Your task to perform on an android device: Go to location settings Image 0: 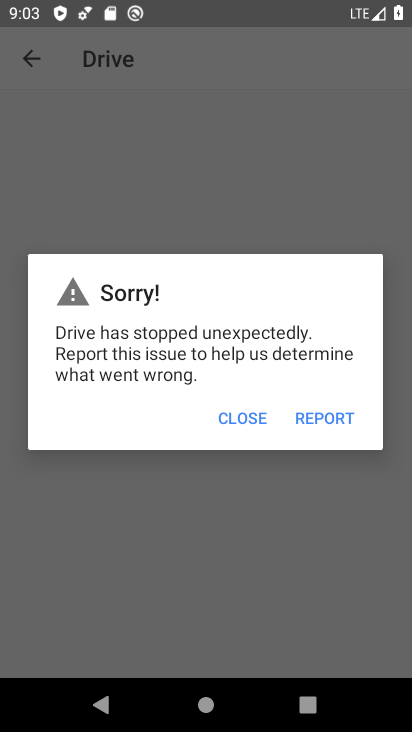
Step 0: press home button
Your task to perform on an android device: Go to location settings Image 1: 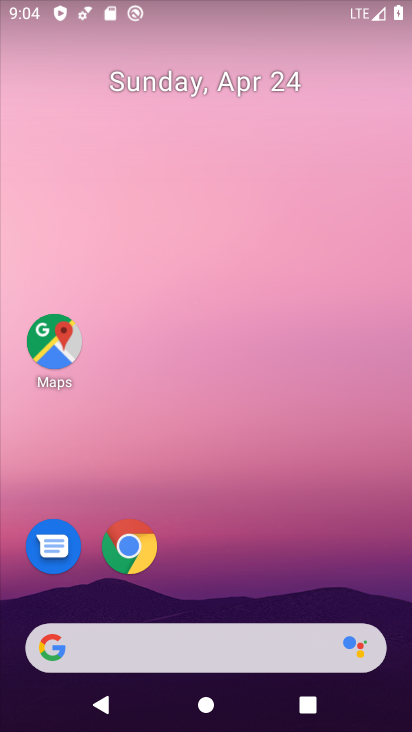
Step 1: drag from (272, 571) to (319, 27)
Your task to perform on an android device: Go to location settings Image 2: 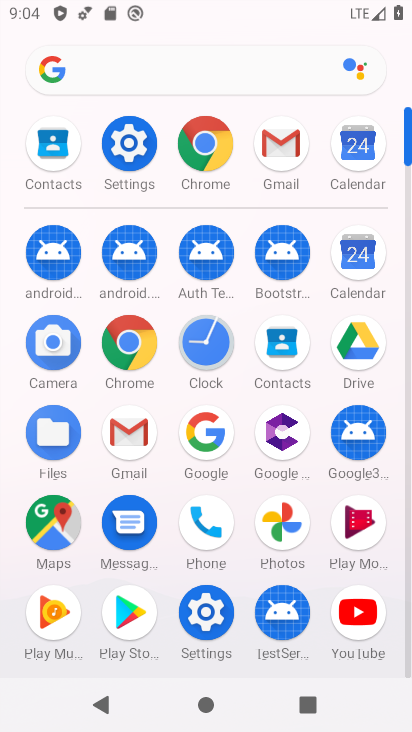
Step 2: click (128, 160)
Your task to perform on an android device: Go to location settings Image 3: 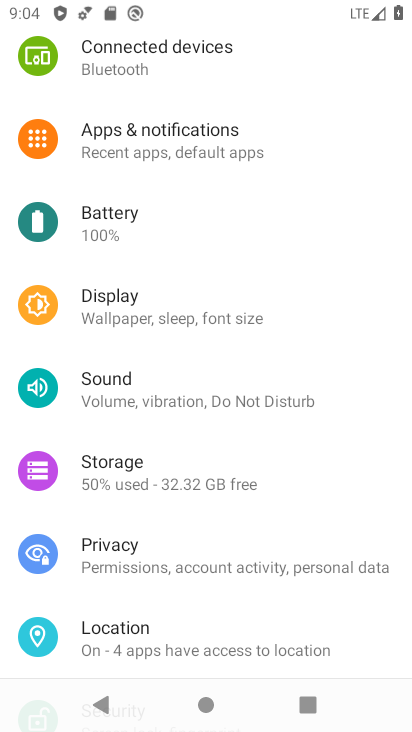
Step 3: click (222, 627)
Your task to perform on an android device: Go to location settings Image 4: 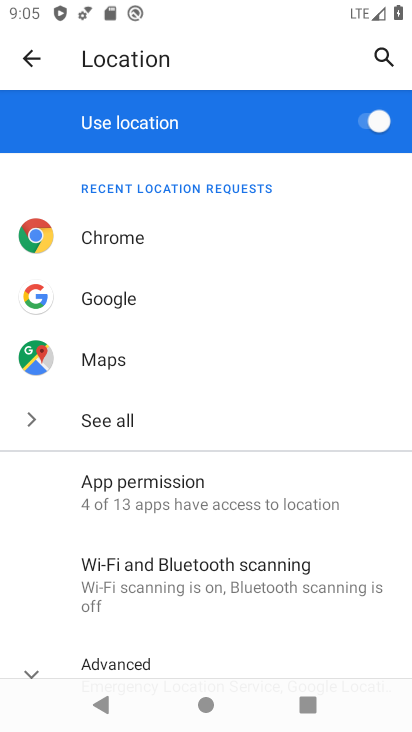
Step 4: task complete